Your task to perform on an android device: Do I have any events this weekend? Image 0: 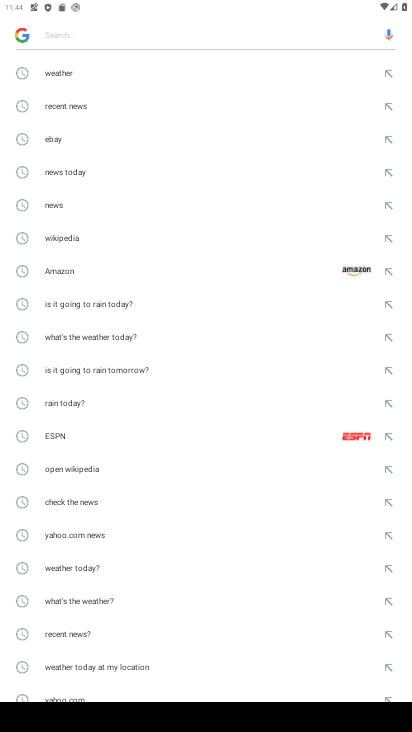
Step 0: press home button
Your task to perform on an android device: Do I have any events this weekend? Image 1: 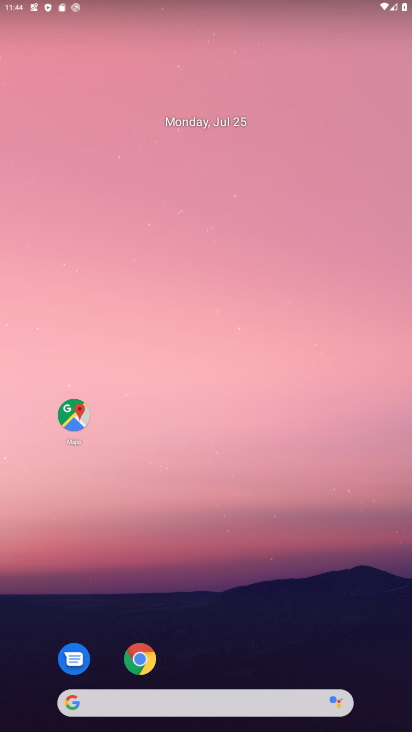
Step 1: click (186, 660)
Your task to perform on an android device: Do I have any events this weekend? Image 2: 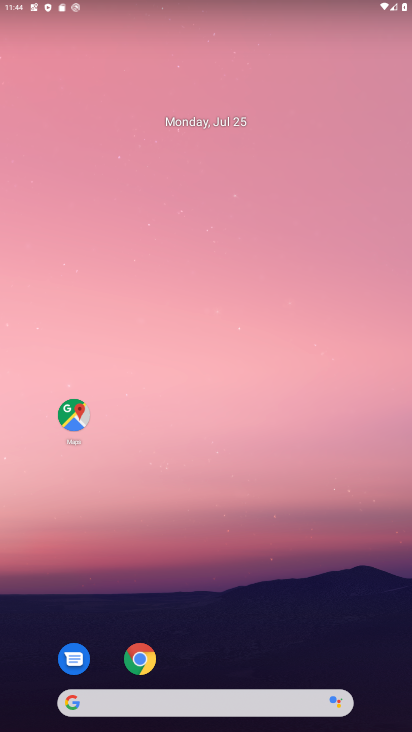
Step 2: drag from (234, 538) to (256, 162)
Your task to perform on an android device: Do I have any events this weekend? Image 3: 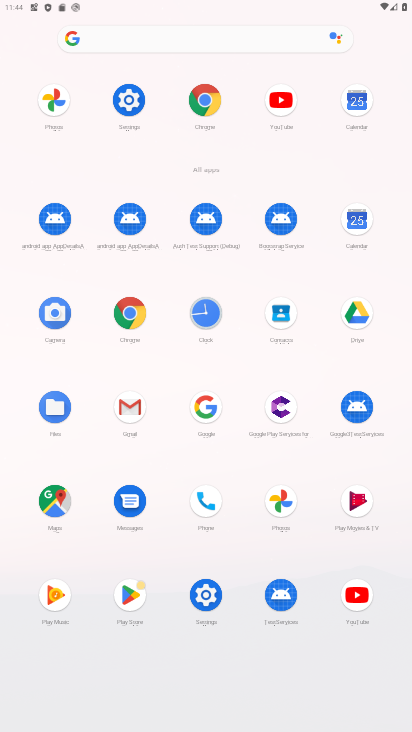
Step 3: click (361, 119)
Your task to perform on an android device: Do I have any events this weekend? Image 4: 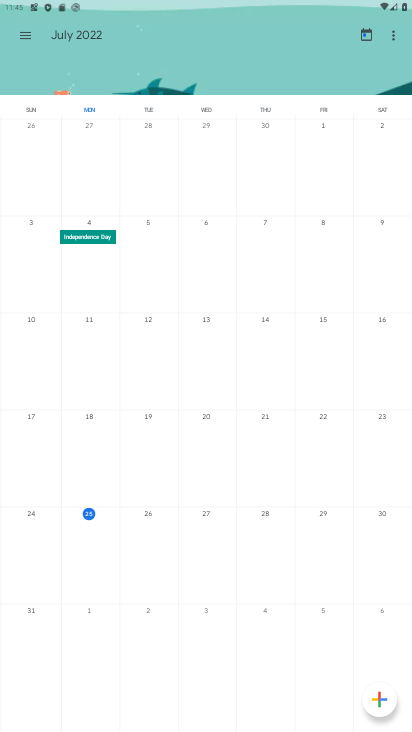
Step 4: task complete